Your task to perform on an android device: change alarm snooze length Image 0: 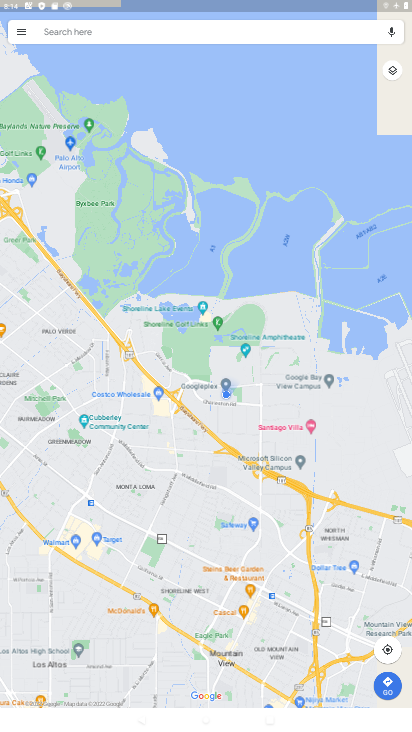
Step 0: press back button
Your task to perform on an android device: change alarm snooze length Image 1: 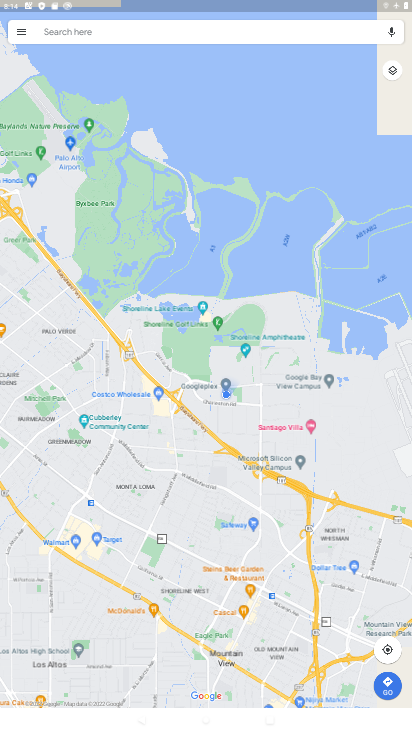
Step 1: press back button
Your task to perform on an android device: change alarm snooze length Image 2: 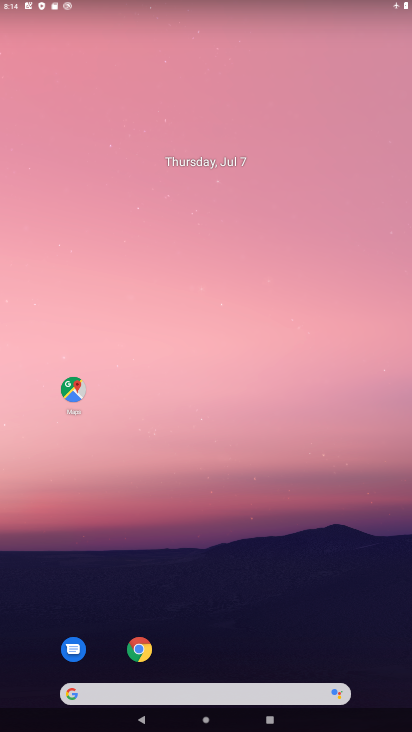
Step 2: drag from (102, 35) to (403, 269)
Your task to perform on an android device: change alarm snooze length Image 3: 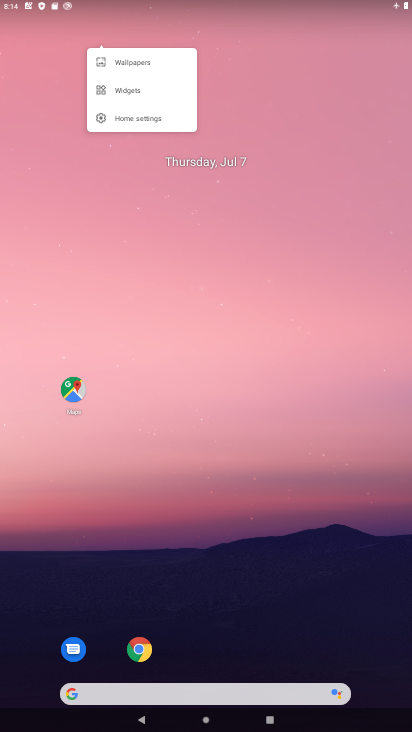
Step 3: drag from (228, 104) to (214, 27)
Your task to perform on an android device: change alarm snooze length Image 4: 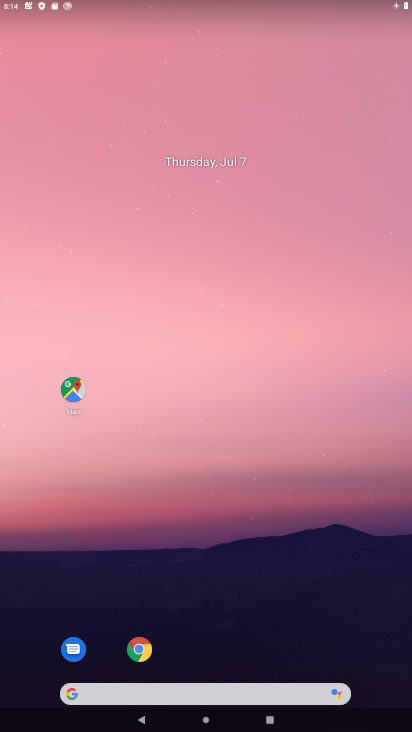
Step 4: drag from (218, 696) to (154, 53)
Your task to perform on an android device: change alarm snooze length Image 5: 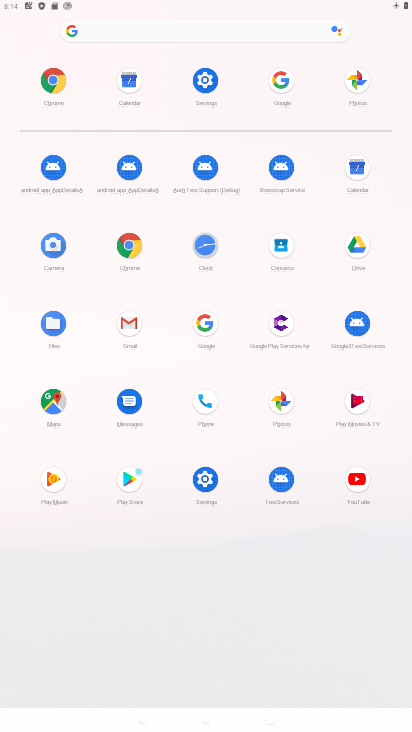
Step 5: drag from (229, 603) to (229, 147)
Your task to perform on an android device: change alarm snooze length Image 6: 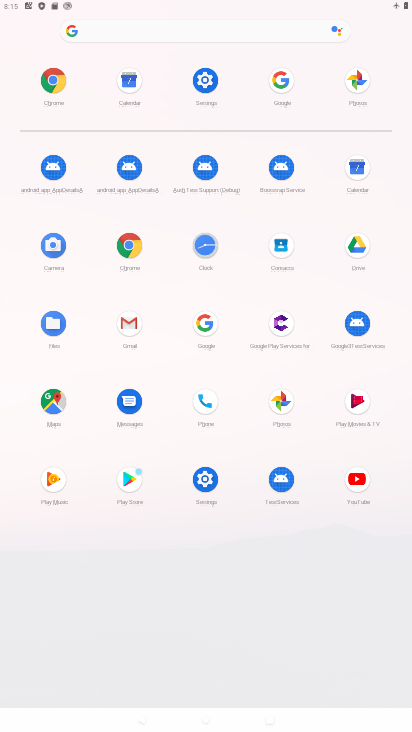
Step 6: click (210, 234)
Your task to perform on an android device: change alarm snooze length Image 7: 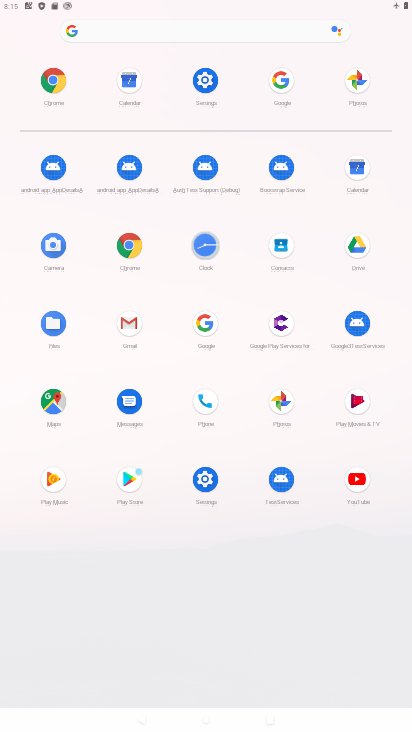
Step 7: click (206, 251)
Your task to perform on an android device: change alarm snooze length Image 8: 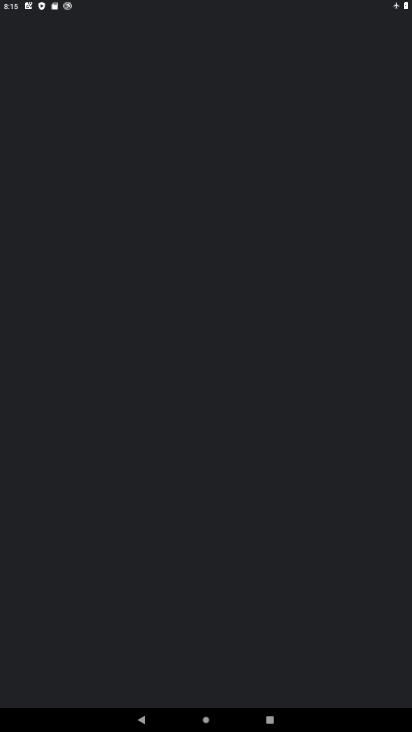
Step 8: click (206, 252)
Your task to perform on an android device: change alarm snooze length Image 9: 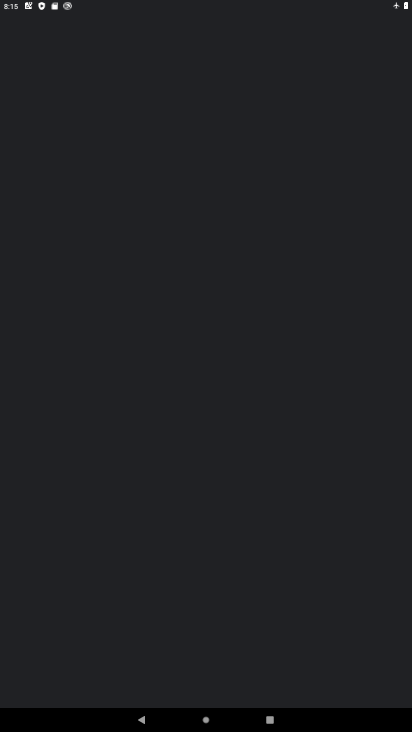
Step 9: click (206, 252)
Your task to perform on an android device: change alarm snooze length Image 10: 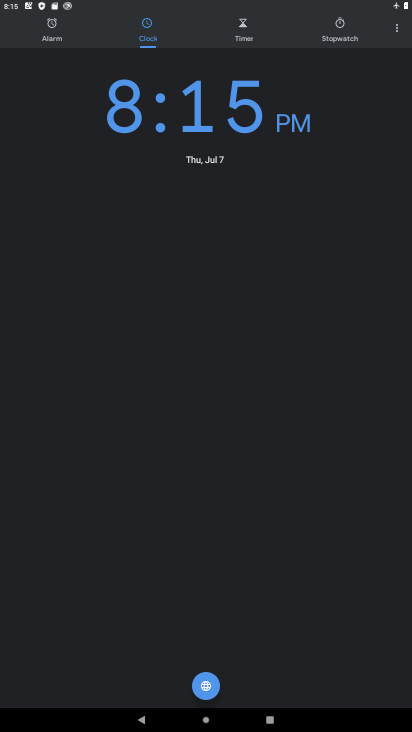
Step 10: click (396, 27)
Your task to perform on an android device: change alarm snooze length Image 11: 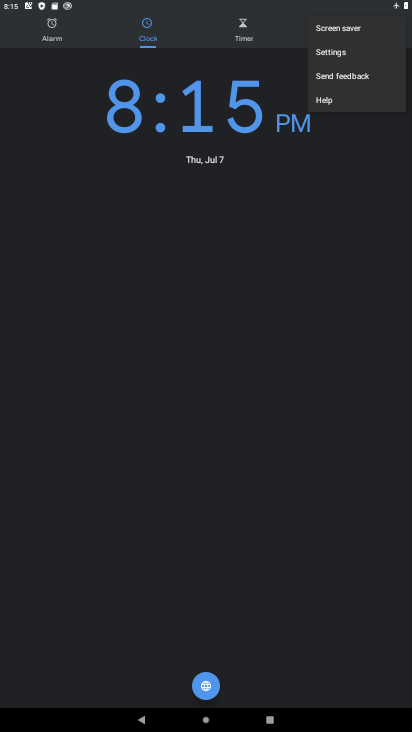
Step 11: drag from (310, 38) to (322, 77)
Your task to perform on an android device: change alarm snooze length Image 12: 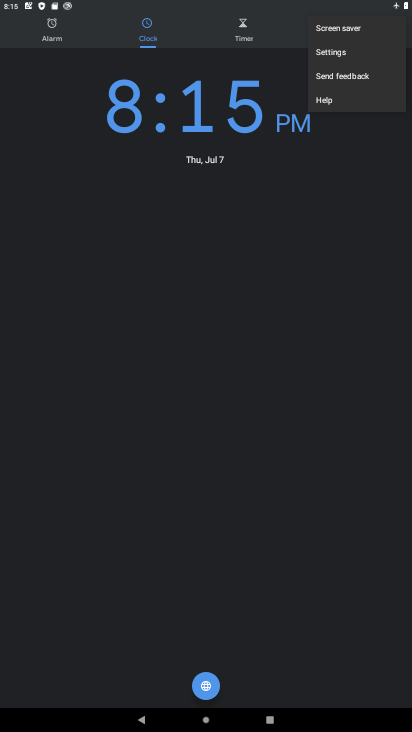
Step 12: click (324, 48)
Your task to perform on an android device: change alarm snooze length Image 13: 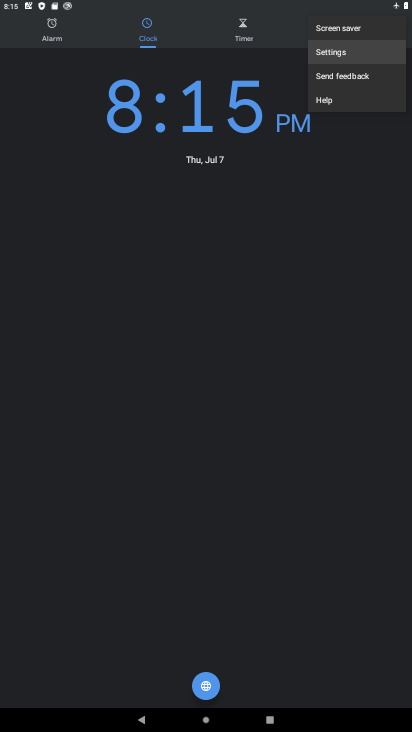
Step 13: click (324, 48)
Your task to perform on an android device: change alarm snooze length Image 14: 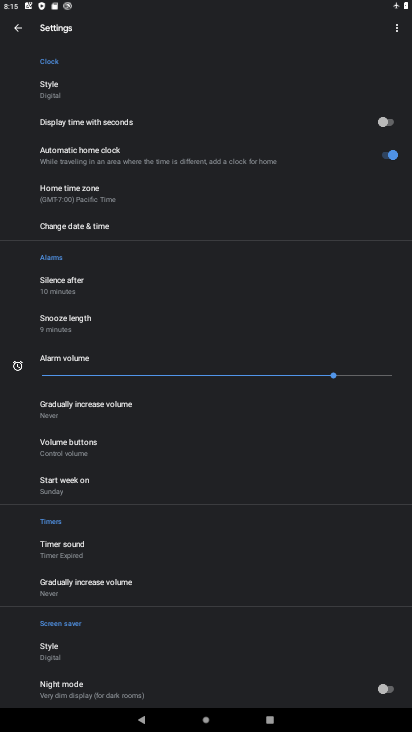
Step 14: click (54, 311)
Your task to perform on an android device: change alarm snooze length Image 15: 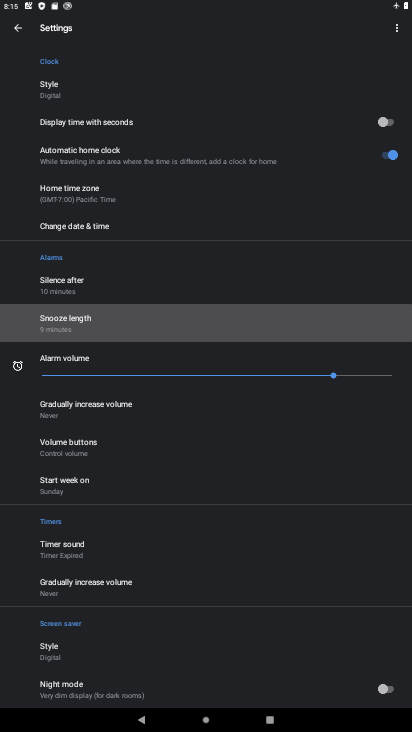
Step 15: click (60, 321)
Your task to perform on an android device: change alarm snooze length Image 16: 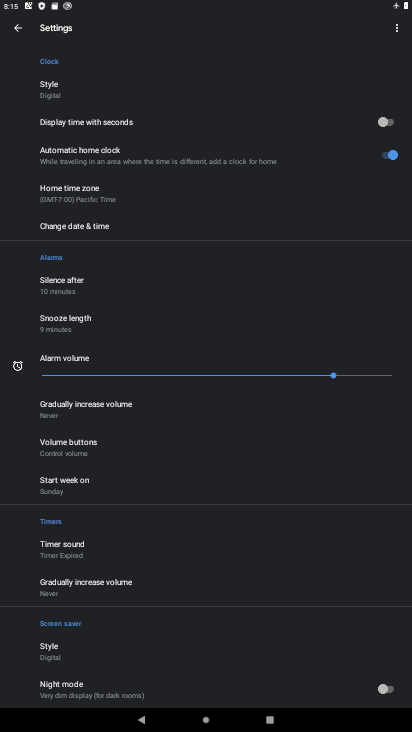
Step 16: click (66, 330)
Your task to perform on an android device: change alarm snooze length Image 17: 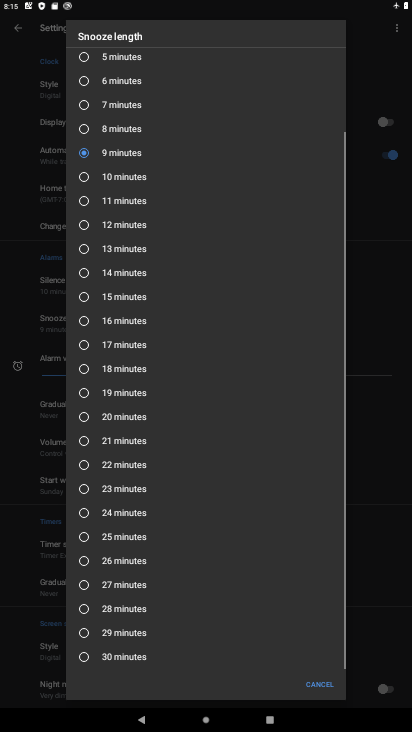
Step 17: click (83, 277)
Your task to perform on an android device: change alarm snooze length Image 18: 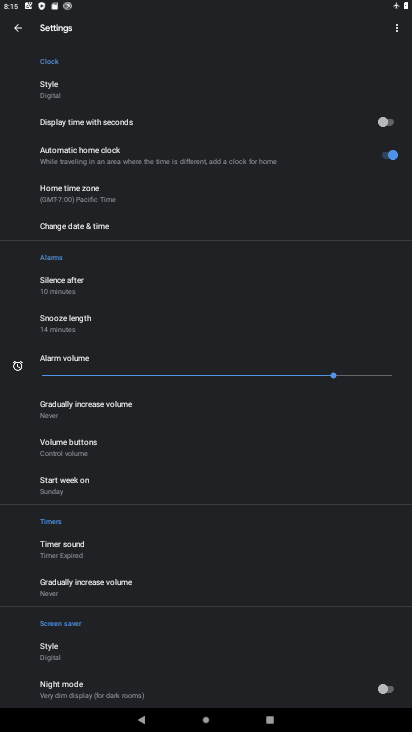
Step 18: click (83, 273)
Your task to perform on an android device: change alarm snooze length Image 19: 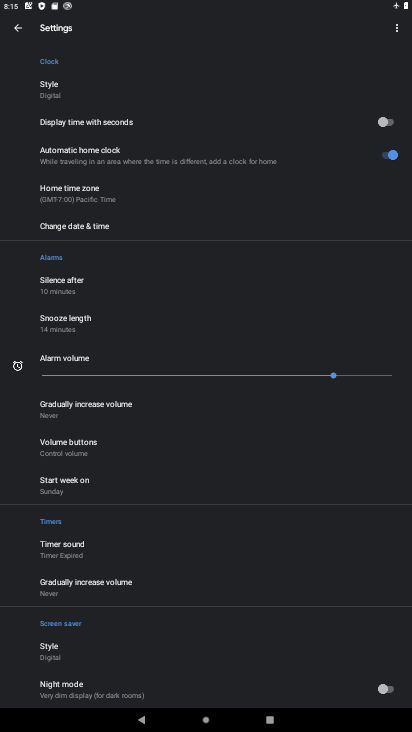
Step 19: click (83, 273)
Your task to perform on an android device: change alarm snooze length Image 20: 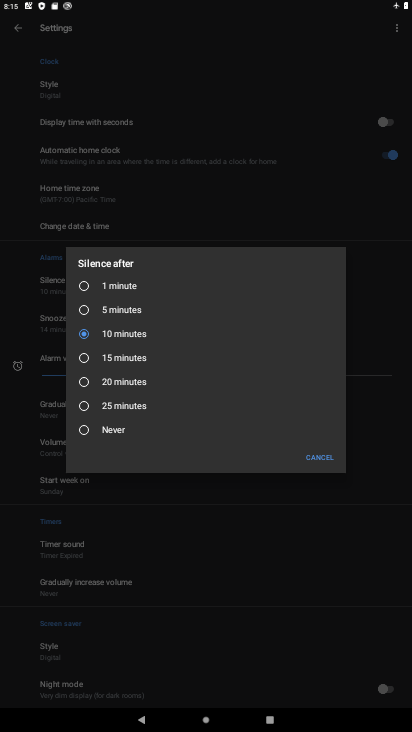
Step 20: task complete